Your task to perform on an android device: Open my contact list Image 0: 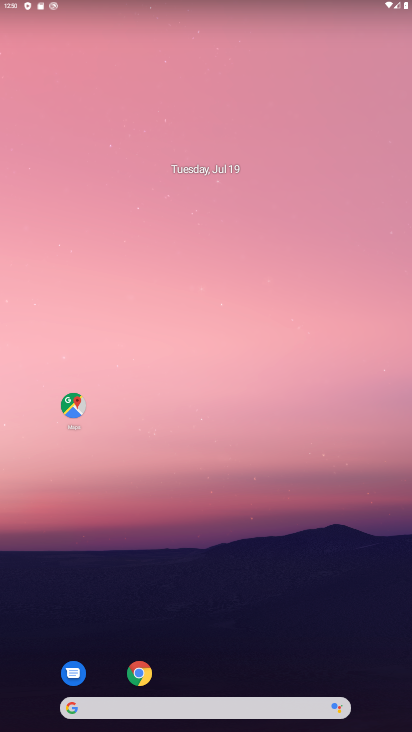
Step 0: drag from (228, 695) to (251, 19)
Your task to perform on an android device: Open my contact list Image 1: 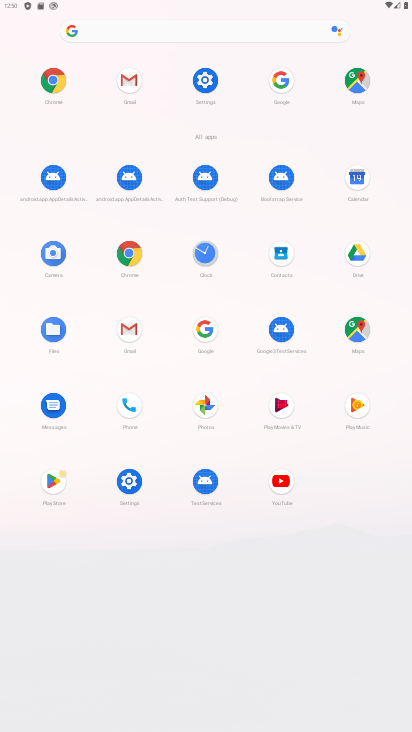
Step 1: click (123, 409)
Your task to perform on an android device: Open my contact list Image 2: 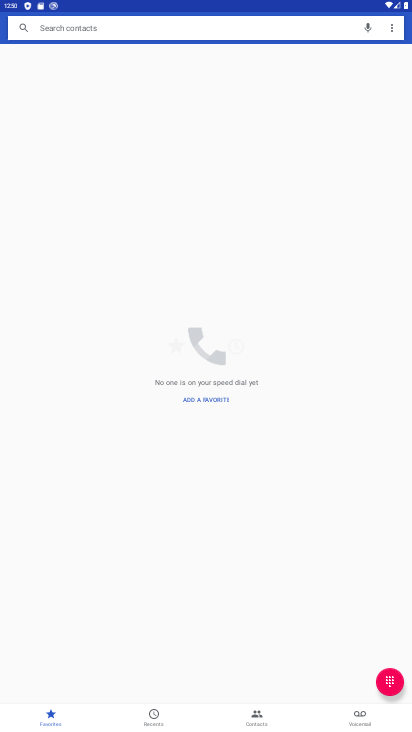
Step 2: click (260, 721)
Your task to perform on an android device: Open my contact list Image 3: 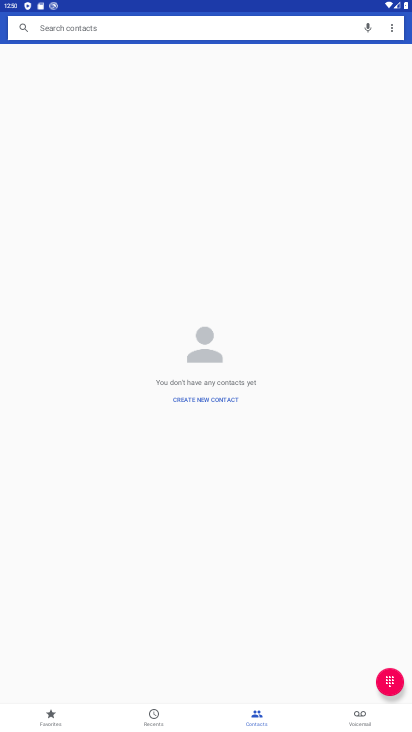
Step 3: task complete